Your task to perform on an android device: Go to sound settings Image 0: 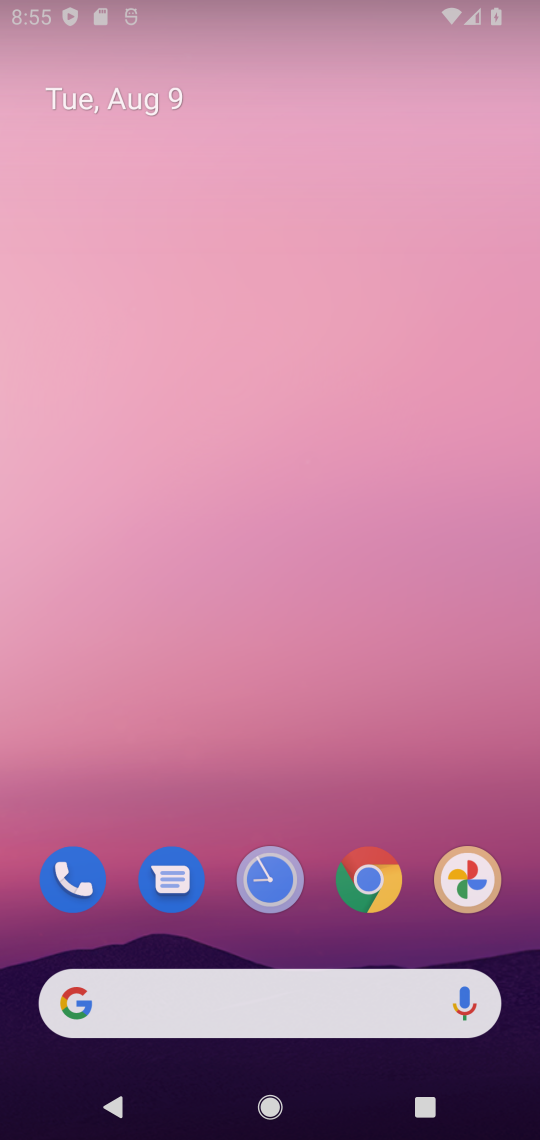
Step 0: press home button
Your task to perform on an android device: Go to sound settings Image 1: 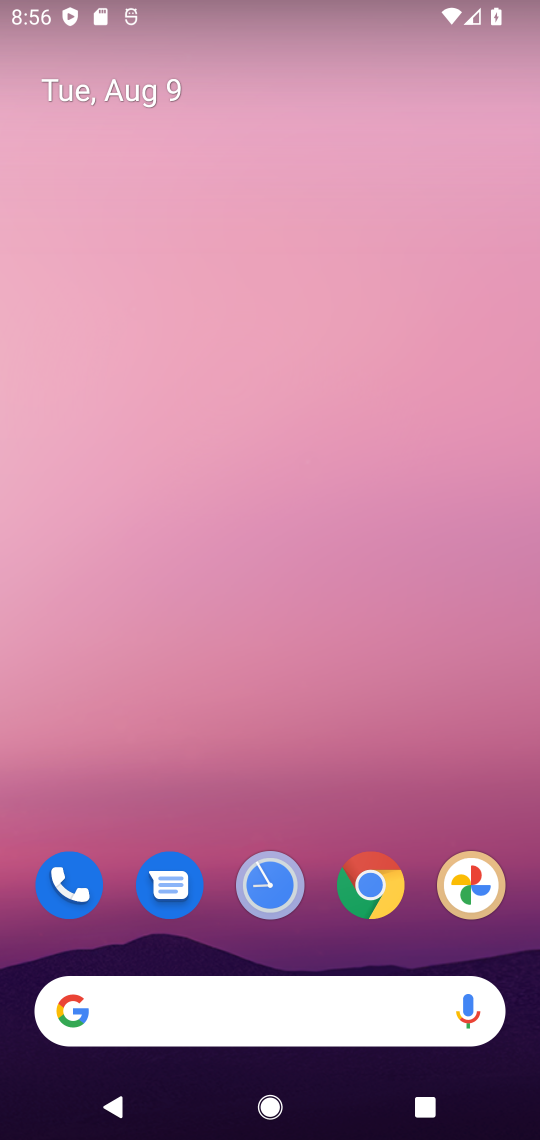
Step 1: drag from (321, 924) to (310, 242)
Your task to perform on an android device: Go to sound settings Image 2: 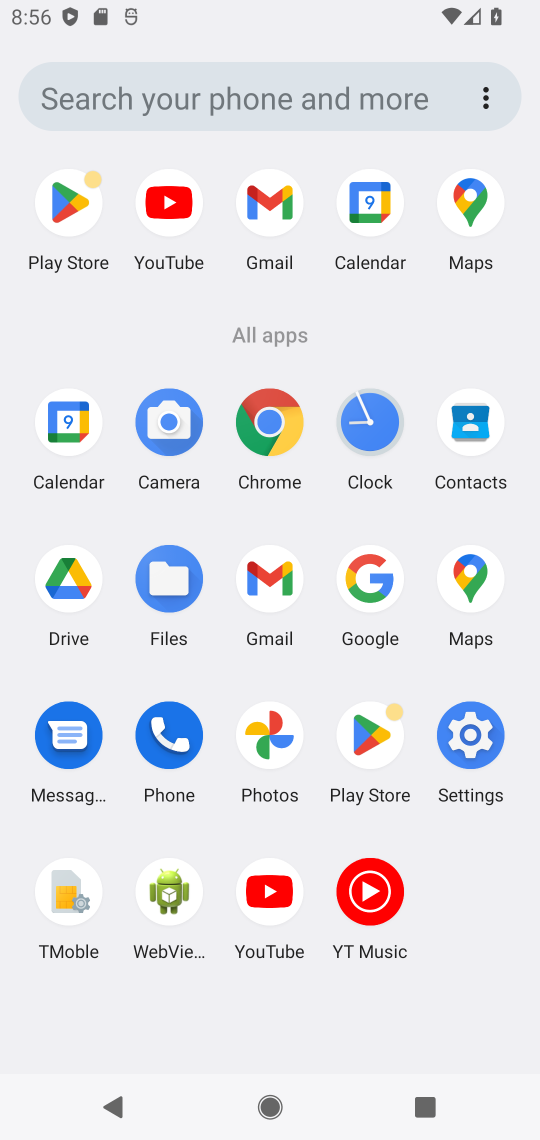
Step 2: click (472, 735)
Your task to perform on an android device: Go to sound settings Image 3: 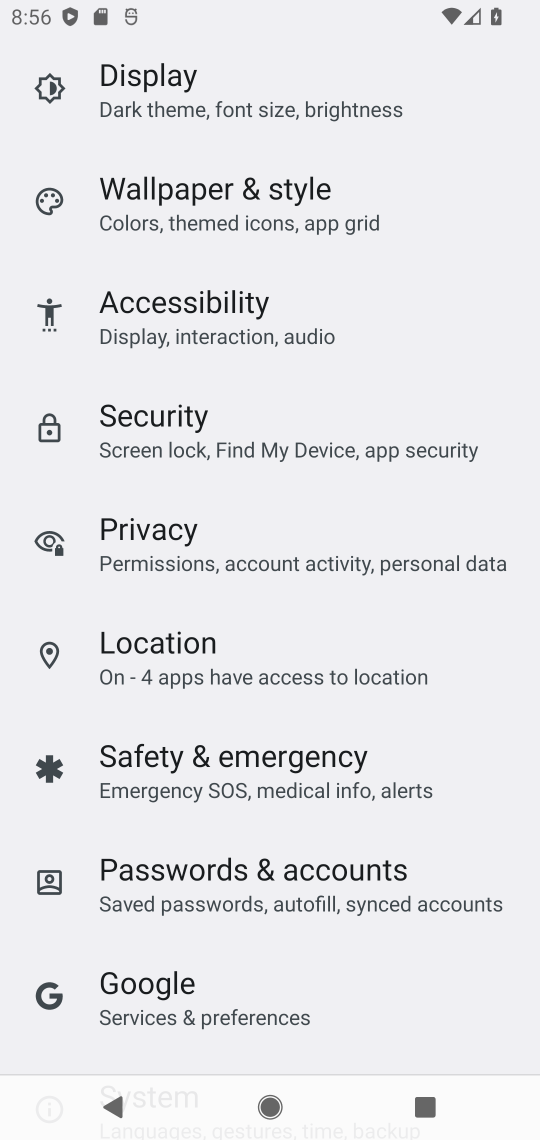
Step 3: drag from (259, 206) to (310, 950)
Your task to perform on an android device: Go to sound settings Image 4: 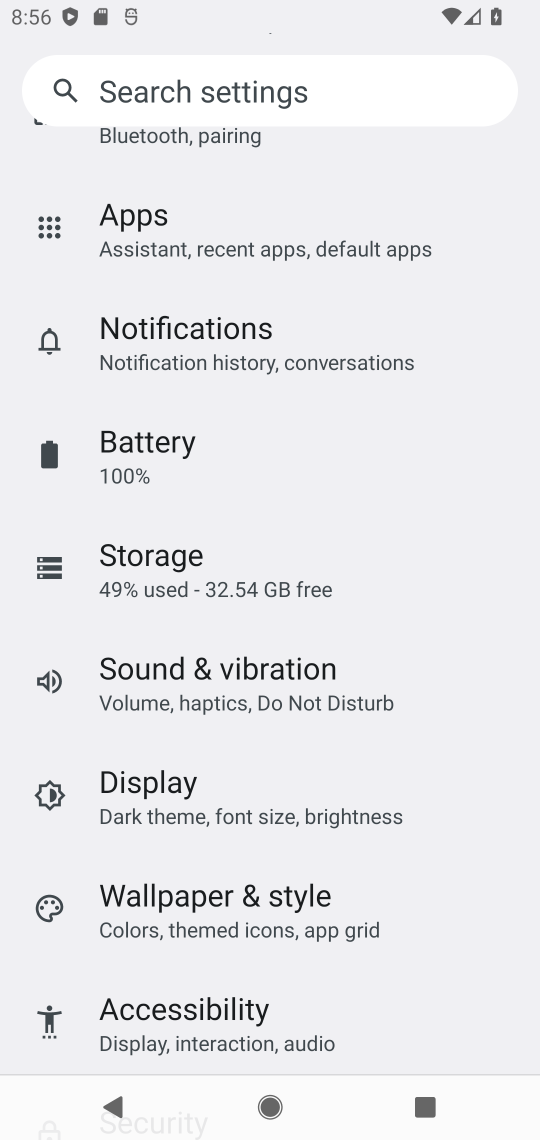
Step 4: click (222, 681)
Your task to perform on an android device: Go to sound settings Image 5: 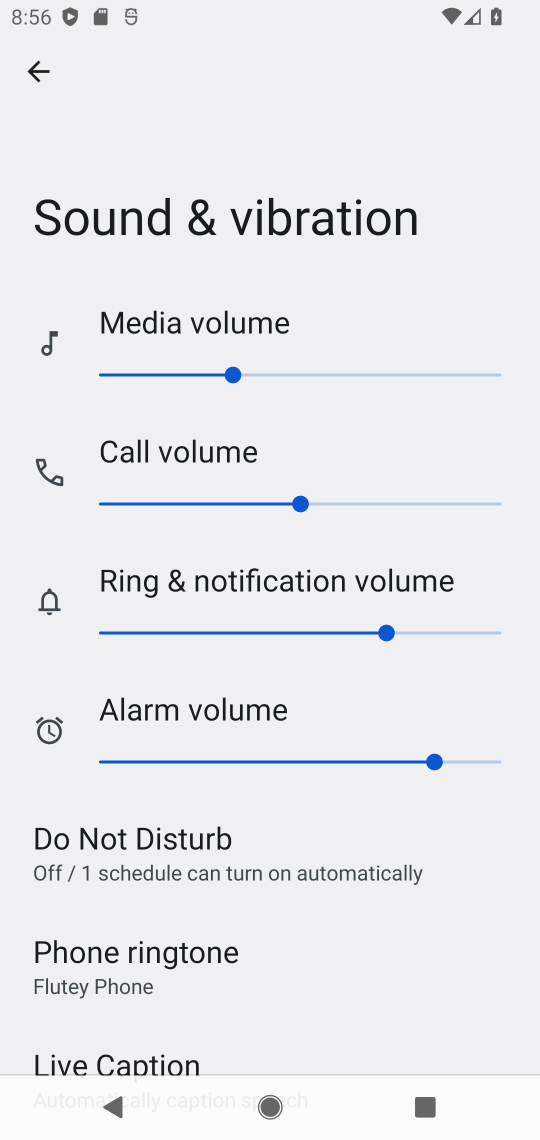
Step 5: task complete